Your task to perform on an android device: turn notification dots on Image 0: 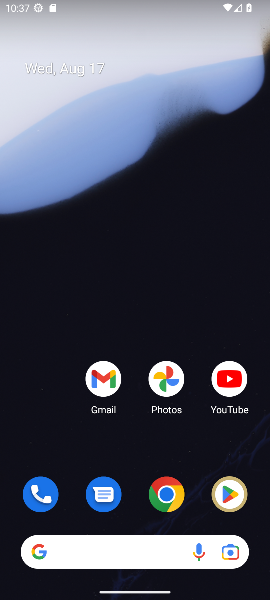
Step 0: drag from (123, 472) to (112, 0)
Your task to perform on an android device: turn notification dots on Image 1: 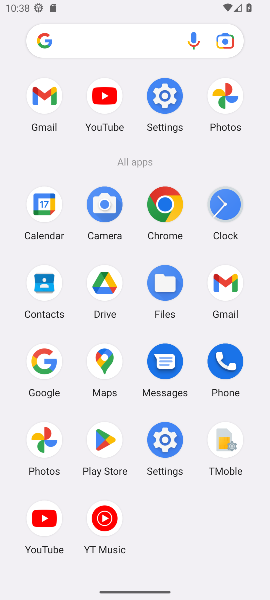
Step 1: click (171, 449)
Your task to perform on an android device: turn notification dots on Image 2: 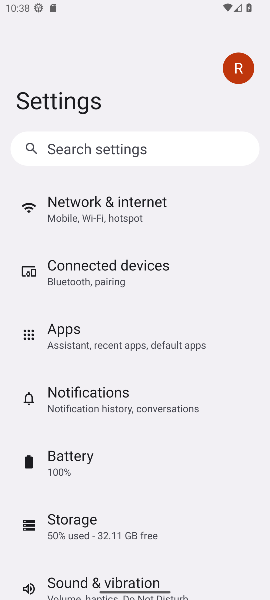
Step 2: click (95, 406)
Your task to perform on an android device: turn notification dots on Image 3: 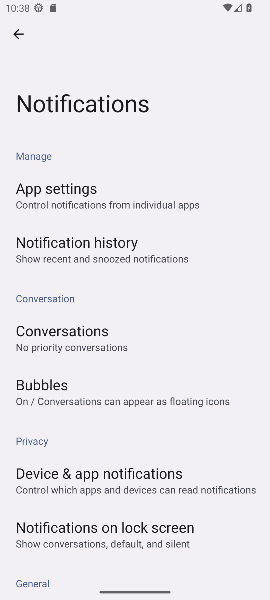
Step 3: task complete